Your task to perform on an android device: change the clock style Image 0: 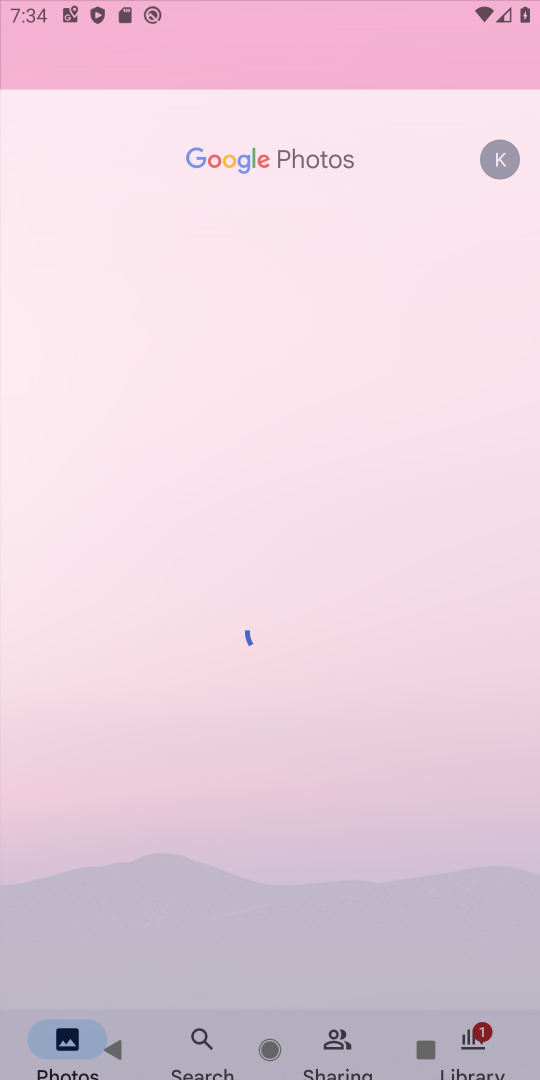
Step 0: press home button
Your task to perform on an android device: change the clock style Image 1: 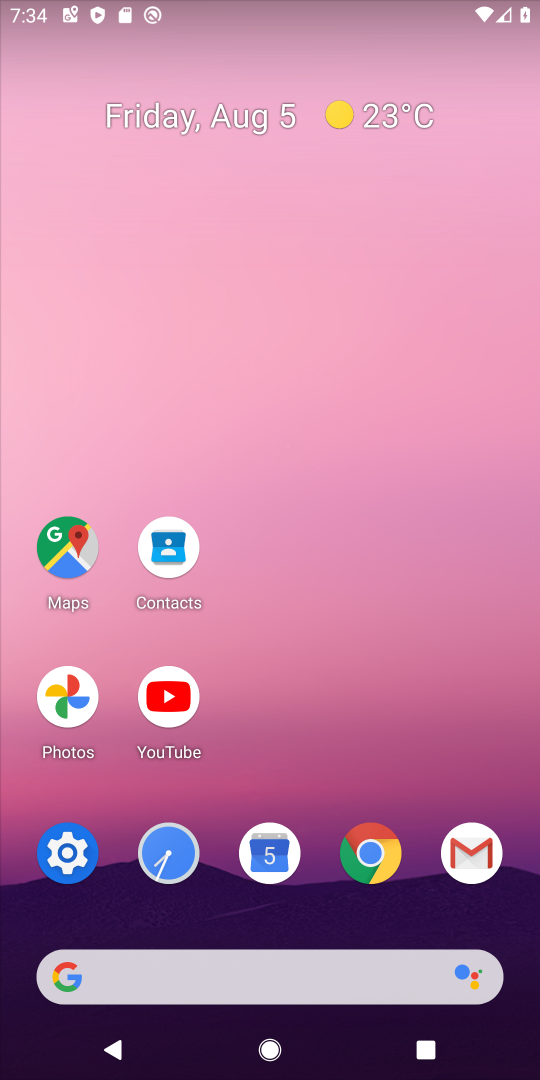
Step 1: click (173, 861)
Your task to perform on an android device: change the clock style Image 2: 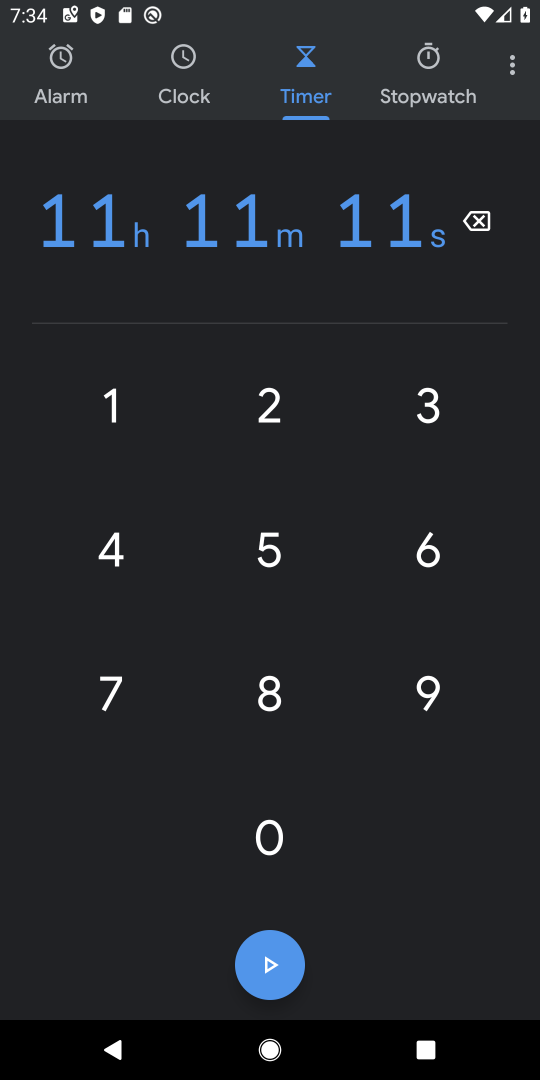
Step 2: click (513, 66)
Your task to perform on an android device: change the clock style Image 3: 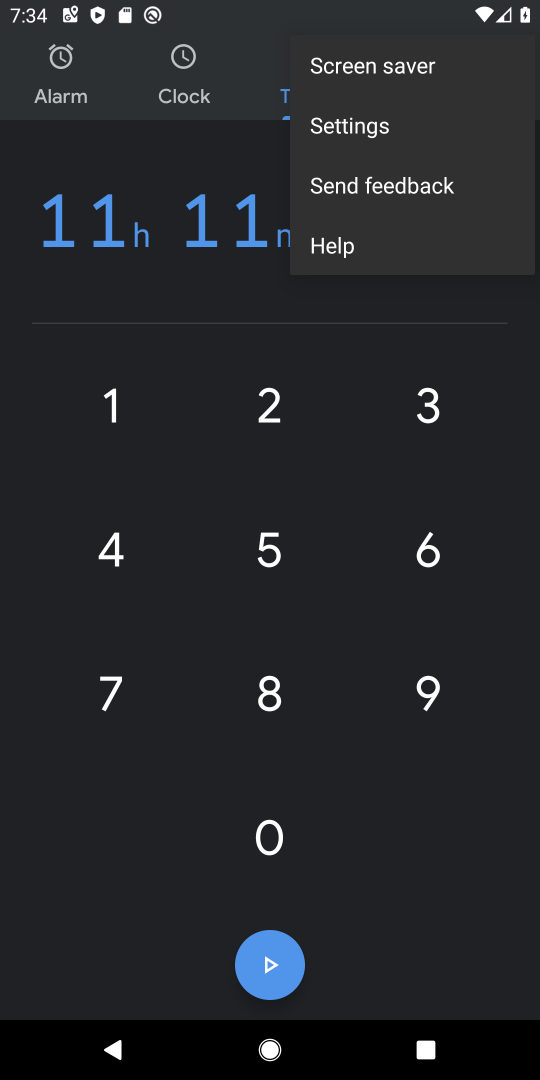
Step 3: click (376, 114)
Your task to perform on an android device: change the clock style Image 4: 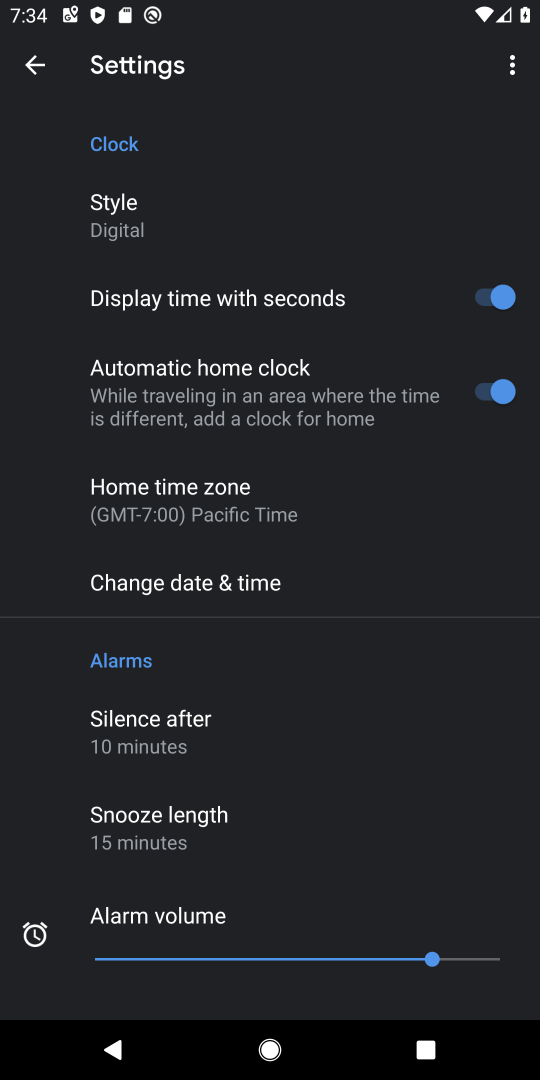
Step 4: click (105, 206)
Your task to perform on an android device: change the clock style Image 5: 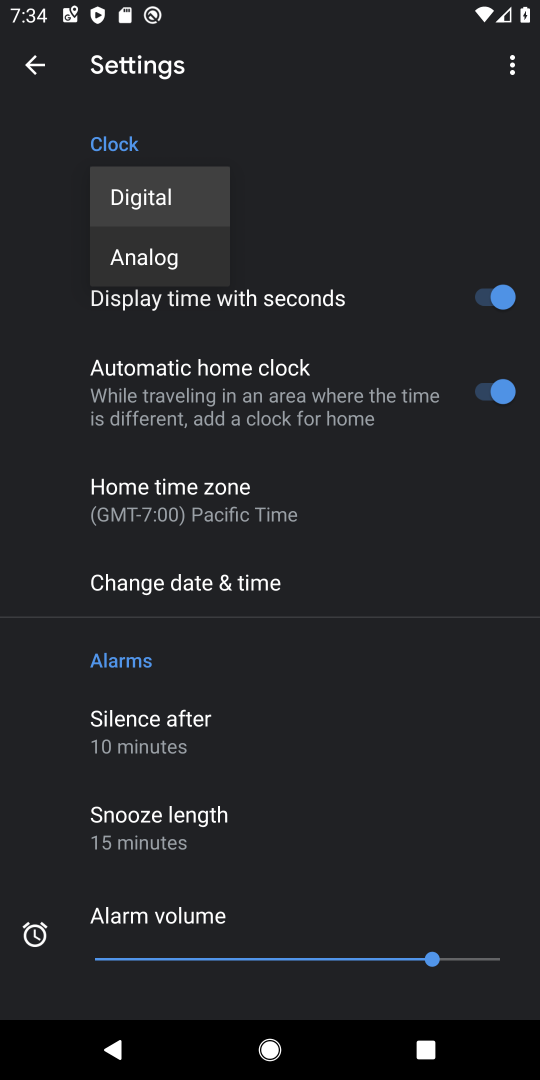
Step 5: click (135, 261)
Your task to perform on an android device: change the clock style Image 6: 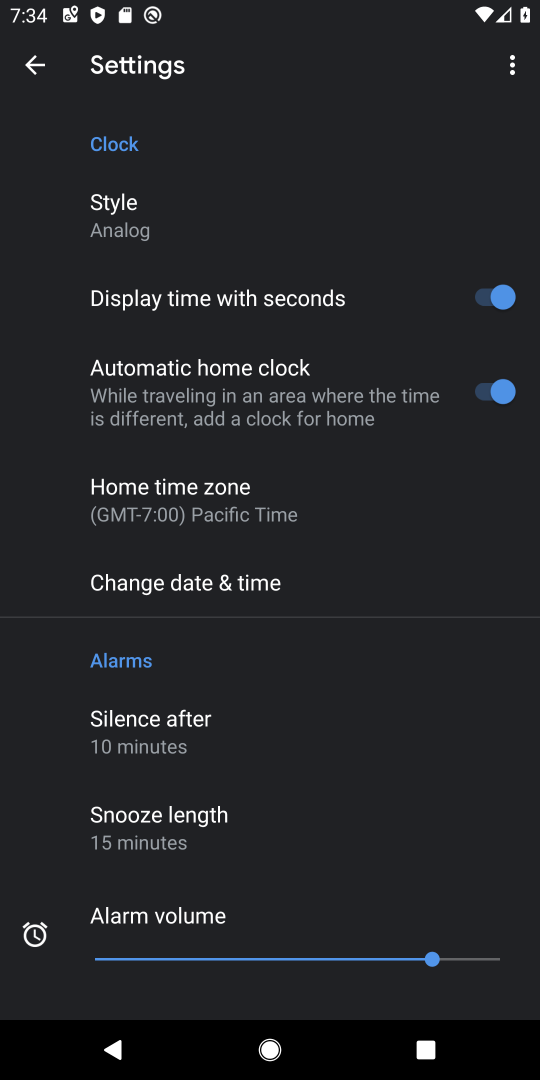
Step 6: task complete